Your task to perform on an android device: toggle sleep mode Image 0: 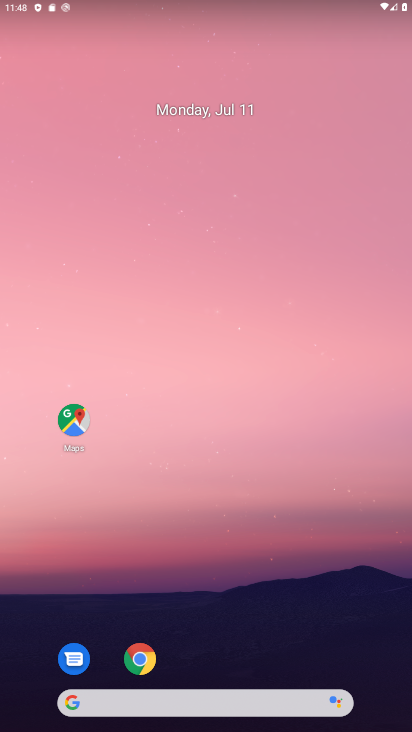
Step 0: drag from (305, 576) to (321, 7)
Your task to perform on an android device: toggle sleep mode Image 1: 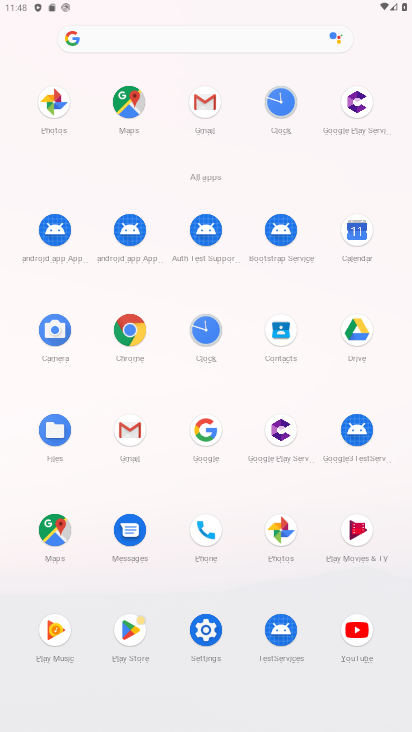
Step 1: click (211, 633)
Your task to perform on an android device: toggle sleep mode Image 2: 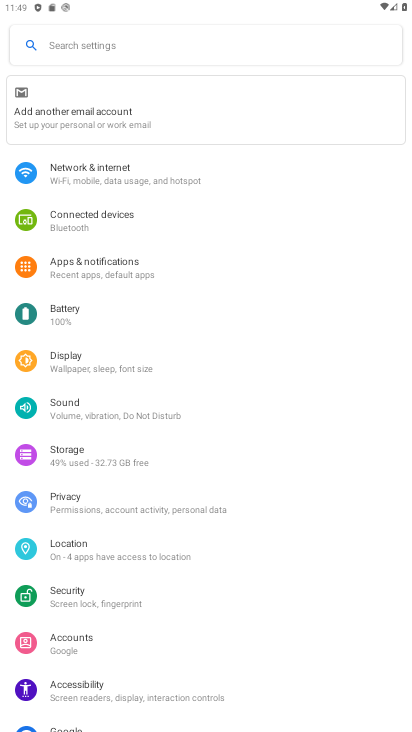
Step 2: drag from (219, 4) to (251, 597)
Your task to perform on an android device: toggle sleep mode Image 3: 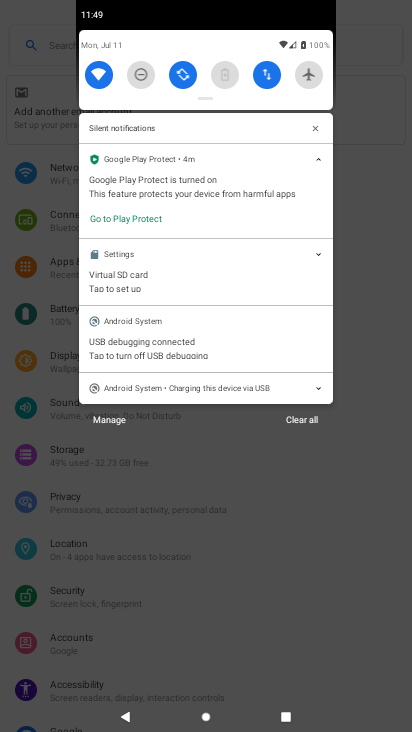
Step 3: drag from (212, 92) to (223, 514)
Your task to perform on an android device: toggle sleep mode Image 4: 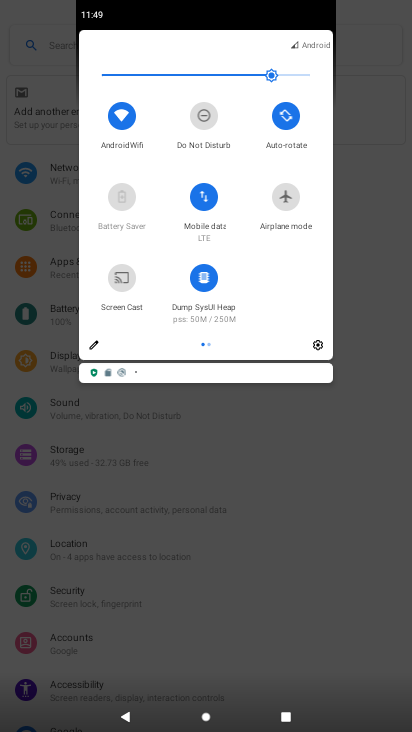
Step 4: click (89, 346)
Your task to perform on an android device: toggle sleep mode Image 5: 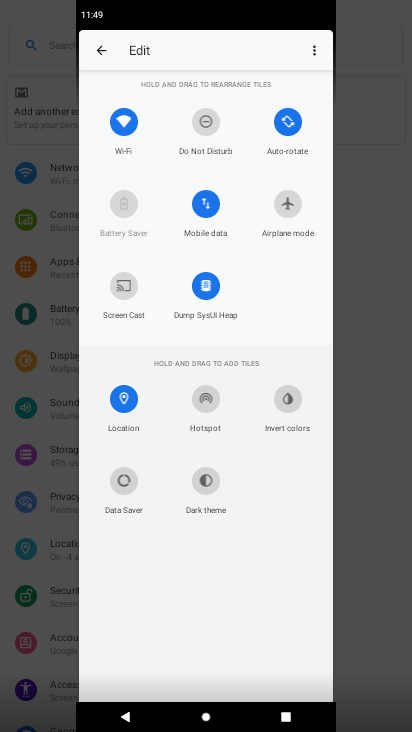
Step 5: task complete